Your task to perform on an android device: turn notification dots off Image 0: 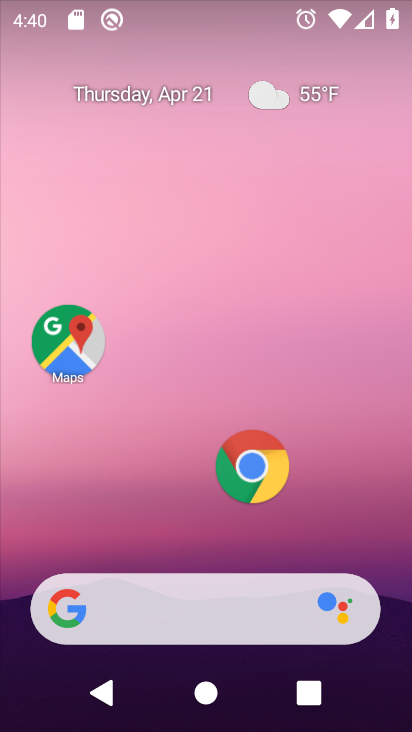
Step 0: click (286, 107)
Your task to perform on an android device: turn notification dots off Image 1: 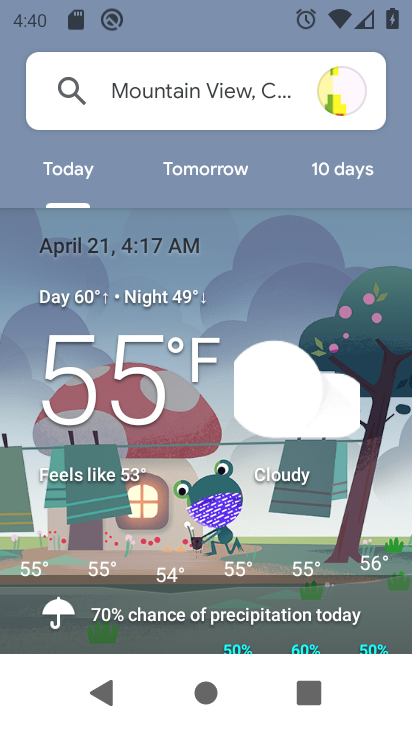
Step 1: press home button
Your task to perform on an android device: turn notification dots off Image 2: 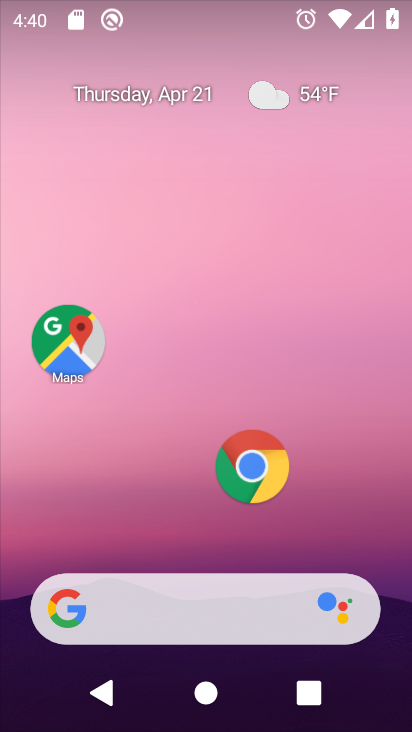
Step 2: drag from (178, 434) to (249, 112)
Your task to perform on an android device: turn notification dots off Image 3: 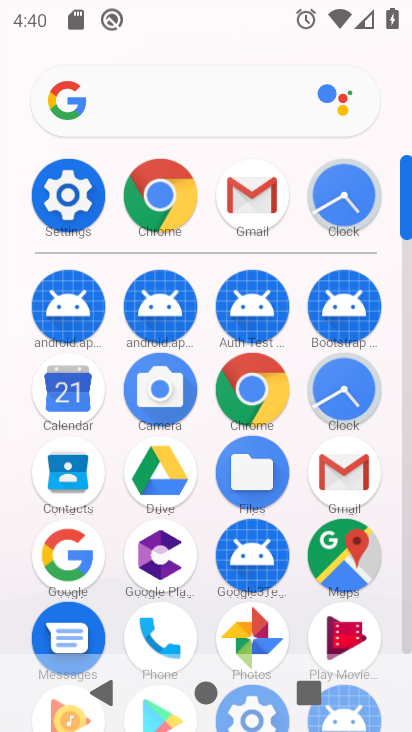
Step 3: click (56, 183)
Your task to perform on an android device: turn notification dots off Image 4: 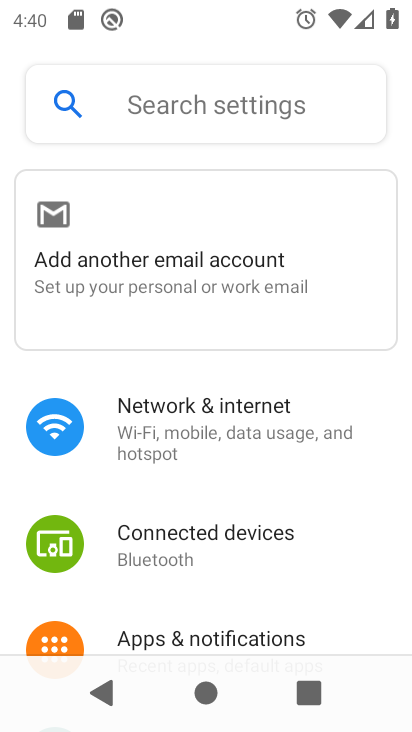
Step 4: click (223, 624)
Your task to perform on an android device: turn notification dots off Image 5: 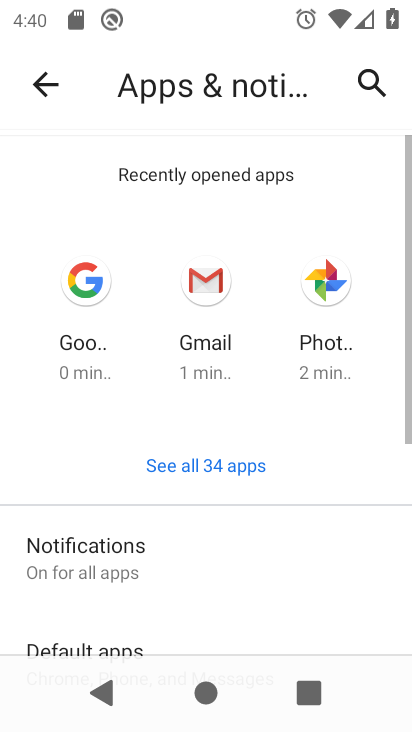
Step 5: click (164, 570)
Your task to perform on an android device: turn notification dots off Image 6: 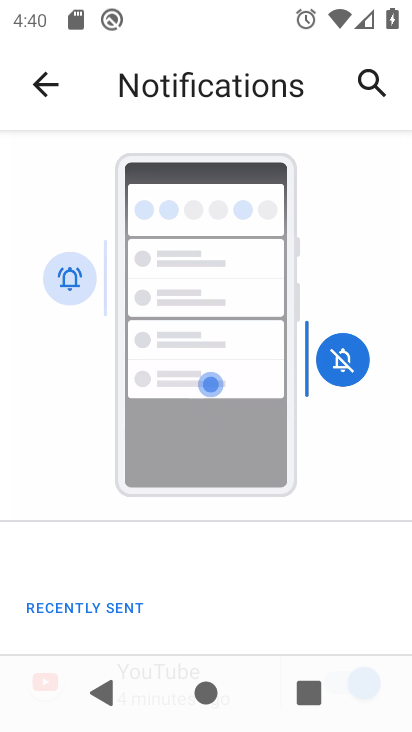
Step 6: drag from (155, 545) to (233, 22)
Your task to perform on an android device: turn notification dots off Image 7: 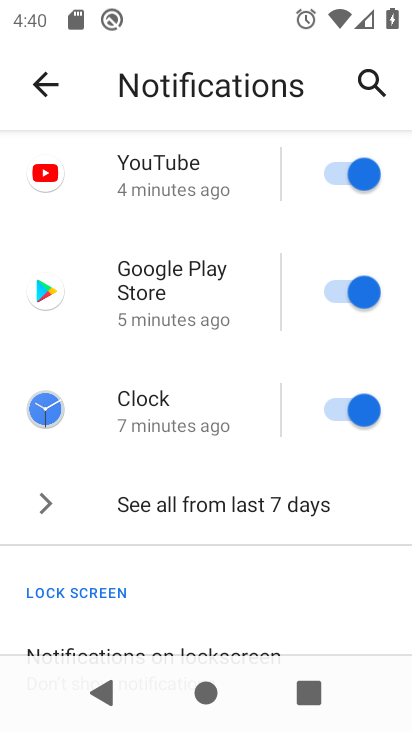
Step 7: drag from (228, 573) to (261, 20)
Your task to perform on an android device: turn notification dots off Image 8: 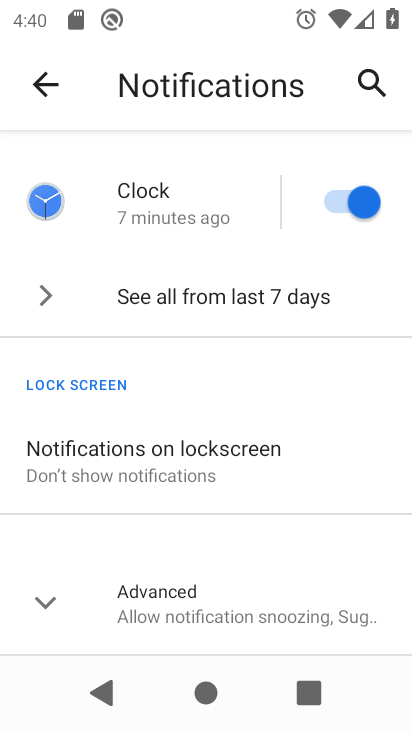
Step 8: click (198, 614)
Your task to perform on an android device: turn notification dots off Image 9: 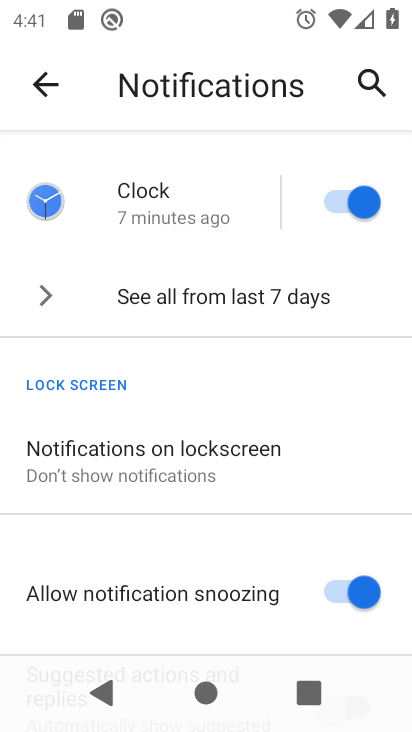
Step 9: task complete